Your task to perform on an android device: Do I have any events today? Image 0: 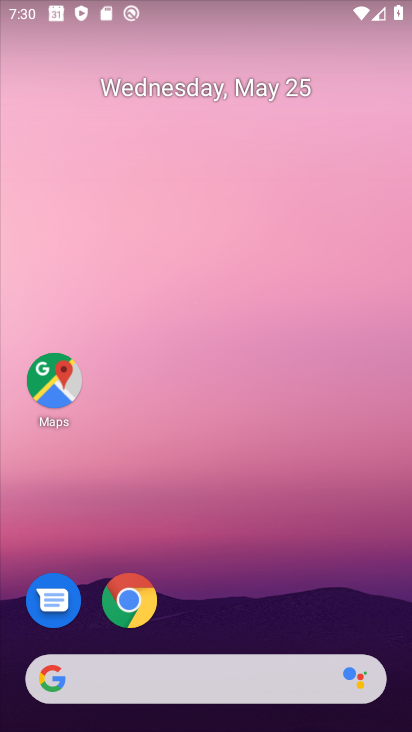
Step 0: drag from (311, 583) to (286, 116)
Your task to perform on an android device: Do I have any events today? Image 1: 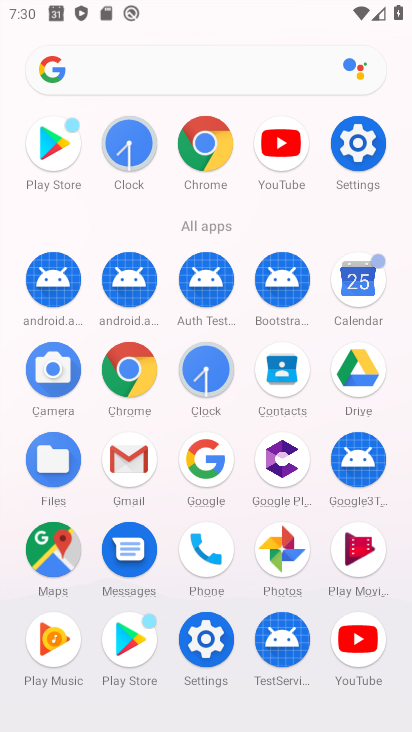
Step 1: click (364, 286)
Your task to perform on an android device: Do I have any events today? Image 2: 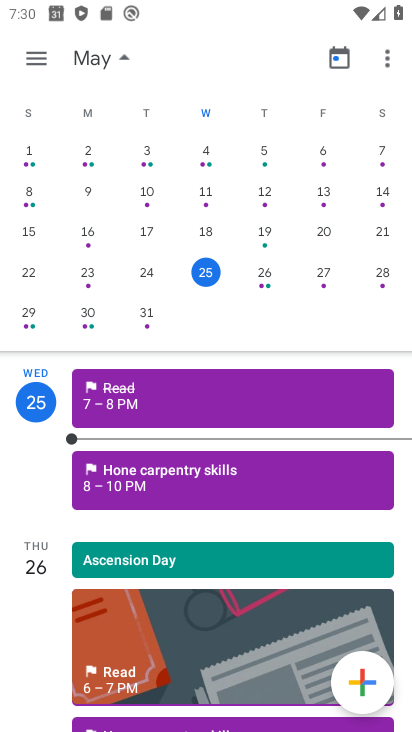
Step 2: task complete